Your task to perform on an android device: delete the emails in spam in the gmail app Image 0: 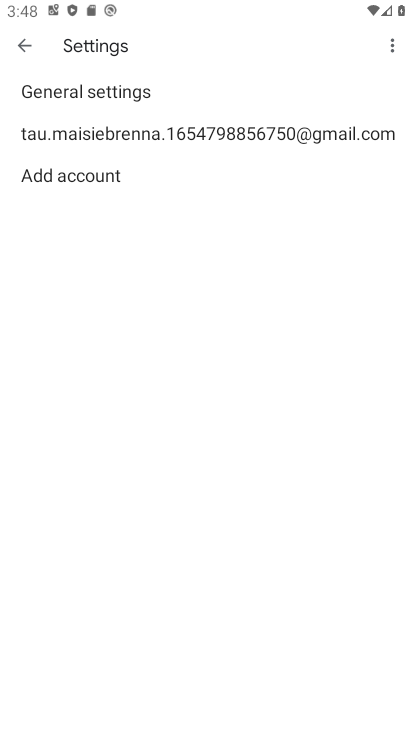
Step 0: press home button
Your task to perform on an android device: delete the emails in spam in the gmail app Image 1: 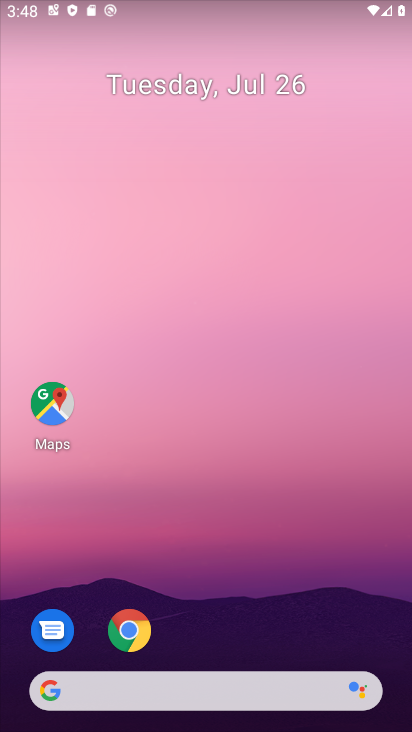
Step 1: drag from (246, 635) to (120, 163)
Your task to perform on an android device: delete the emails in spam in the gmail app Image 2: 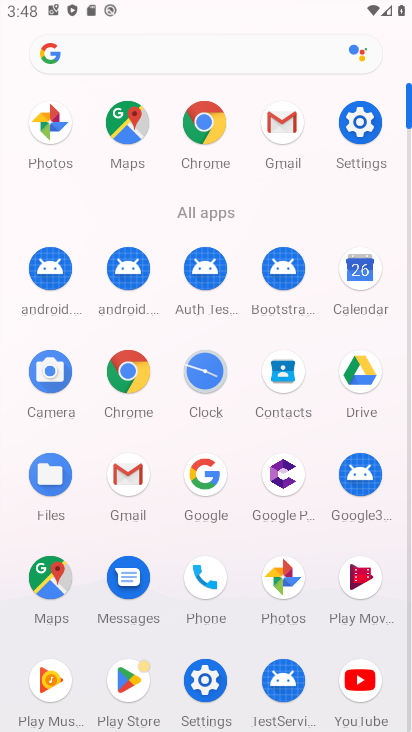
Step 2: click (282, 120)
Your task to perform on an android device: delete the emails in spam in the gmail app Image 3: 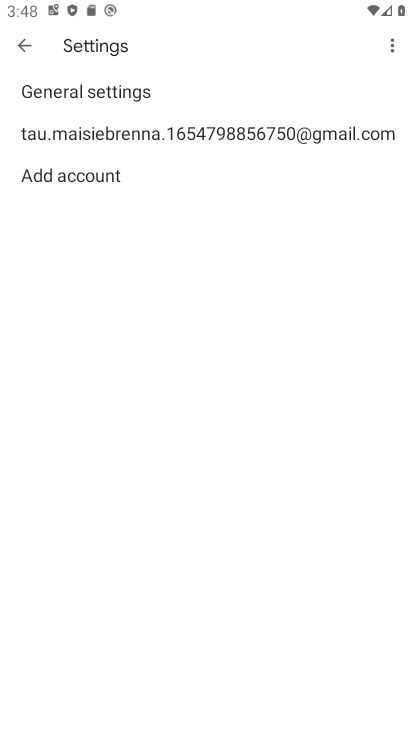
Step 3: click (20, 51)
Your task to perform on an android device: delete the emails in spam in the gmail app Image 4: 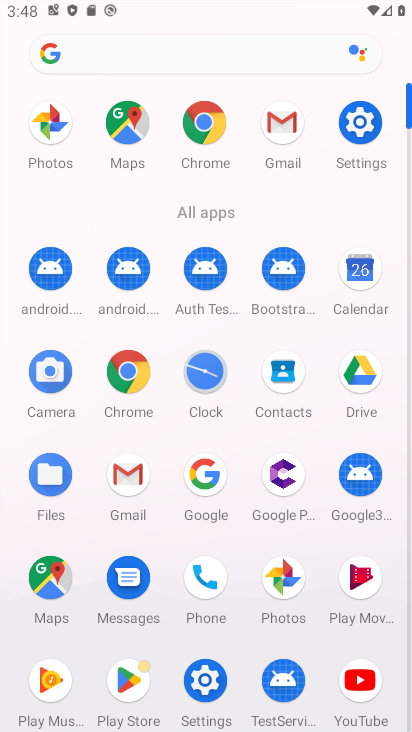
Step 4: click (281, 128)
Your task to perform on an android device: delete the emails in spam in the gmail app Image 5: 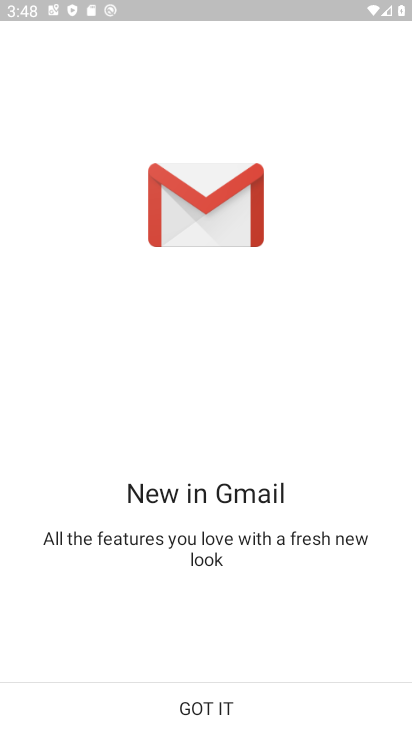
Step 5: click (218, 713)
Your task to perform on an android device: delete the emails in spam in the gmail app Image 6: 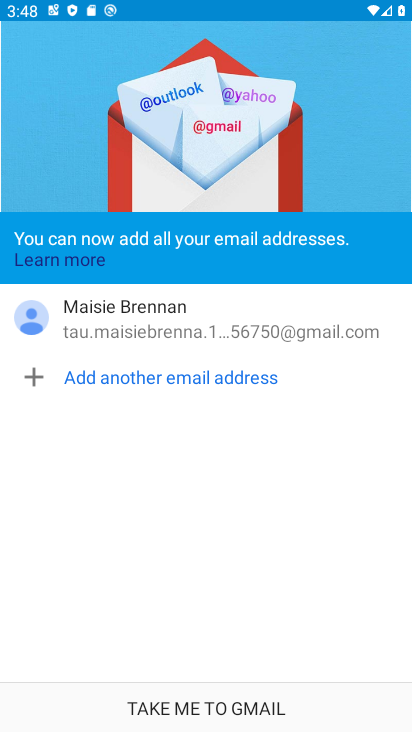
Step 6: click (218, 715)
Your task to perform on an android device: delete the emails in spam in the gmail app Image 7: 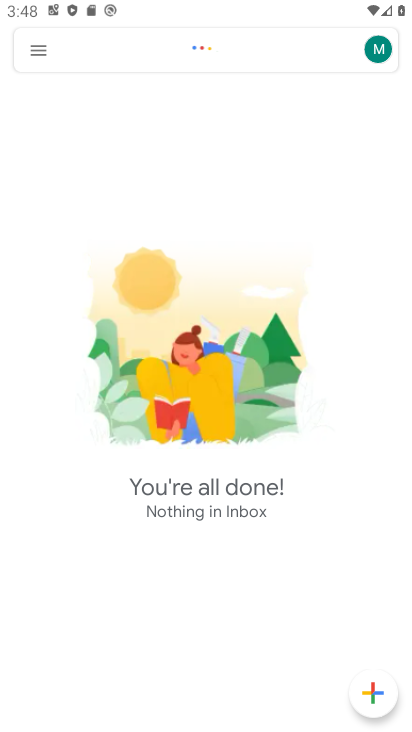
Step 7: click (36, 55)
Your task to perform on an android device: delete the emails in spam in the gmail app Image 8: 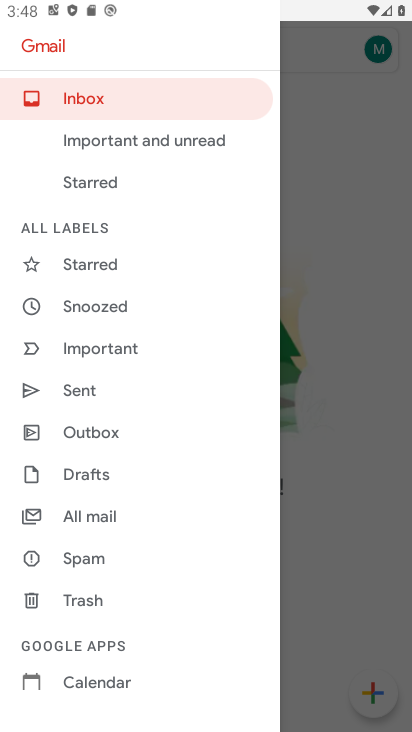
Step 8: click (111, 559)
Your task to perform on an android device: delete the emails in spam in the gmail app Image 9: 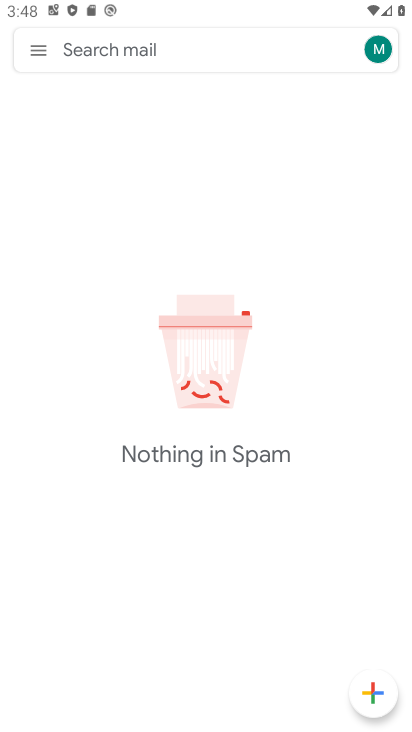
Step 9: task complete